Your task to perform on an android device: find which apps use the phone's location Image 0: 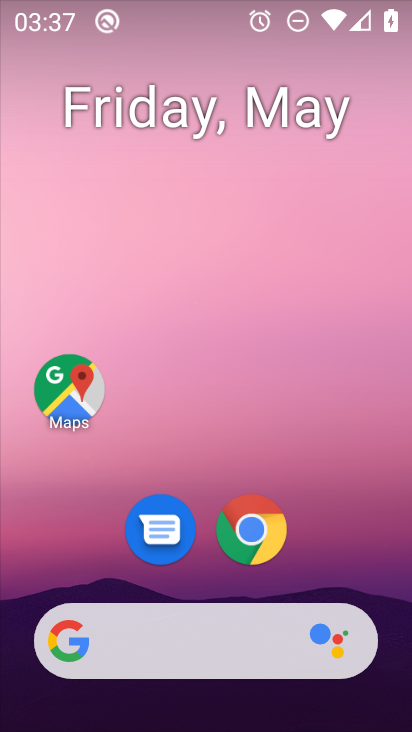
Step 0: drag from (393, 656) to (381, 266)
Your task to perform on an android device: find which apps use the phone's location Image 1: 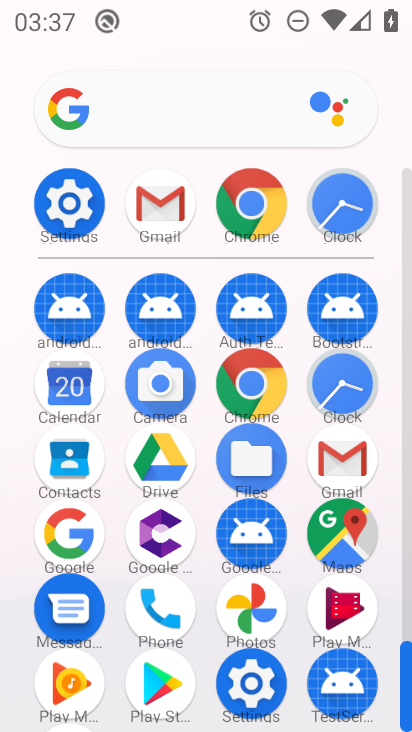
Step 1: click (262, 698)
Your task to perform on an android device: find which apps use the phone's location Image 2: 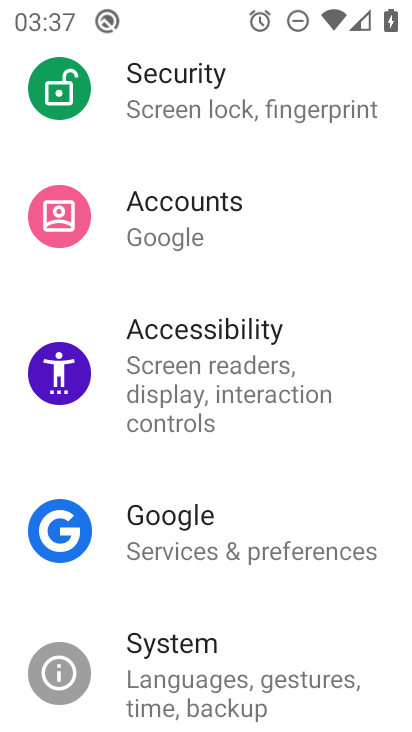
Step 2: drag from (291, 75) to (379, 559)
Your task to perform on an android device: find which apps use the phone's location Image 3: 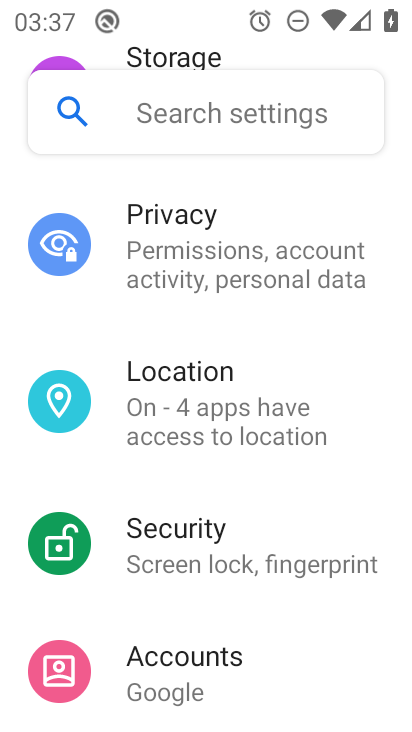
Step 3: drag from (308, 283) to (300, 649)
Your task to perform on an android device: find which apps use the phone's location Image 4: 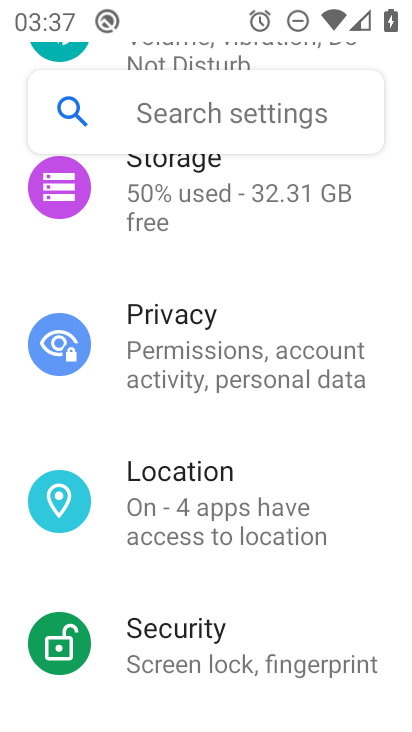
Step 4: click (155, 505)
Your task to perform on an android device: find which apps use the phone's location Image 5: 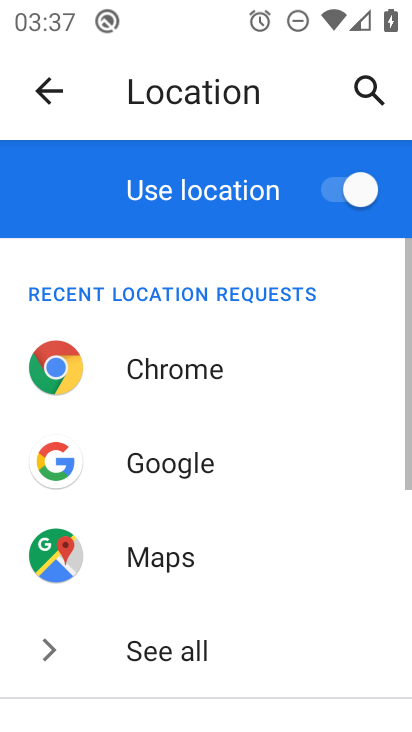
Step 5: drag from (296, 657) to (296, 168)
Your task to perform on an android device: find which apps use the phone's location Image 6: 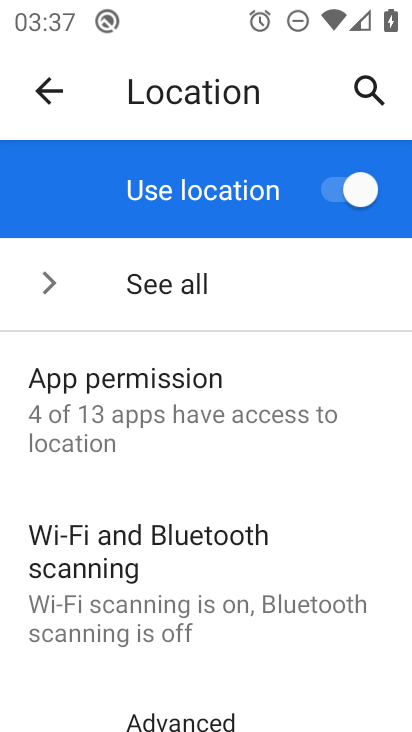
Step 6: click (91, 411)
Your task to perform on an android device: find which apps use the phone's location Image 7: 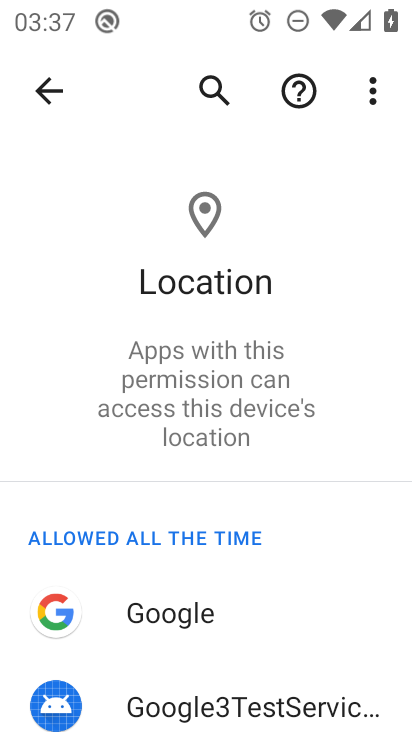
Step 7: task complete